Your task to perform on an android device: Open calendar and show me the third week of next month Image 0: 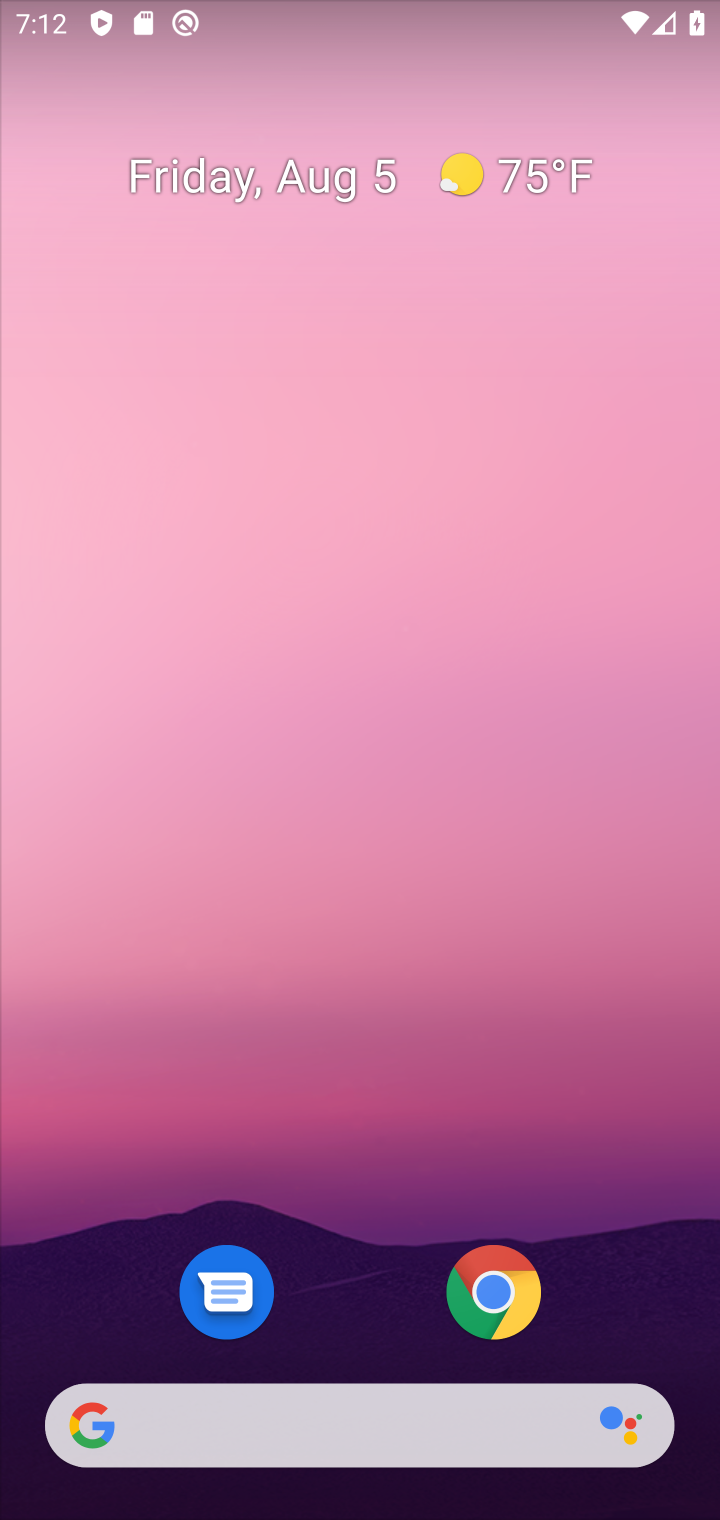
Step 0: drag from (319, 1214) to (341, 57)
Your task to perform on an android device: Open calendar and show me the third week of next month Image 1: 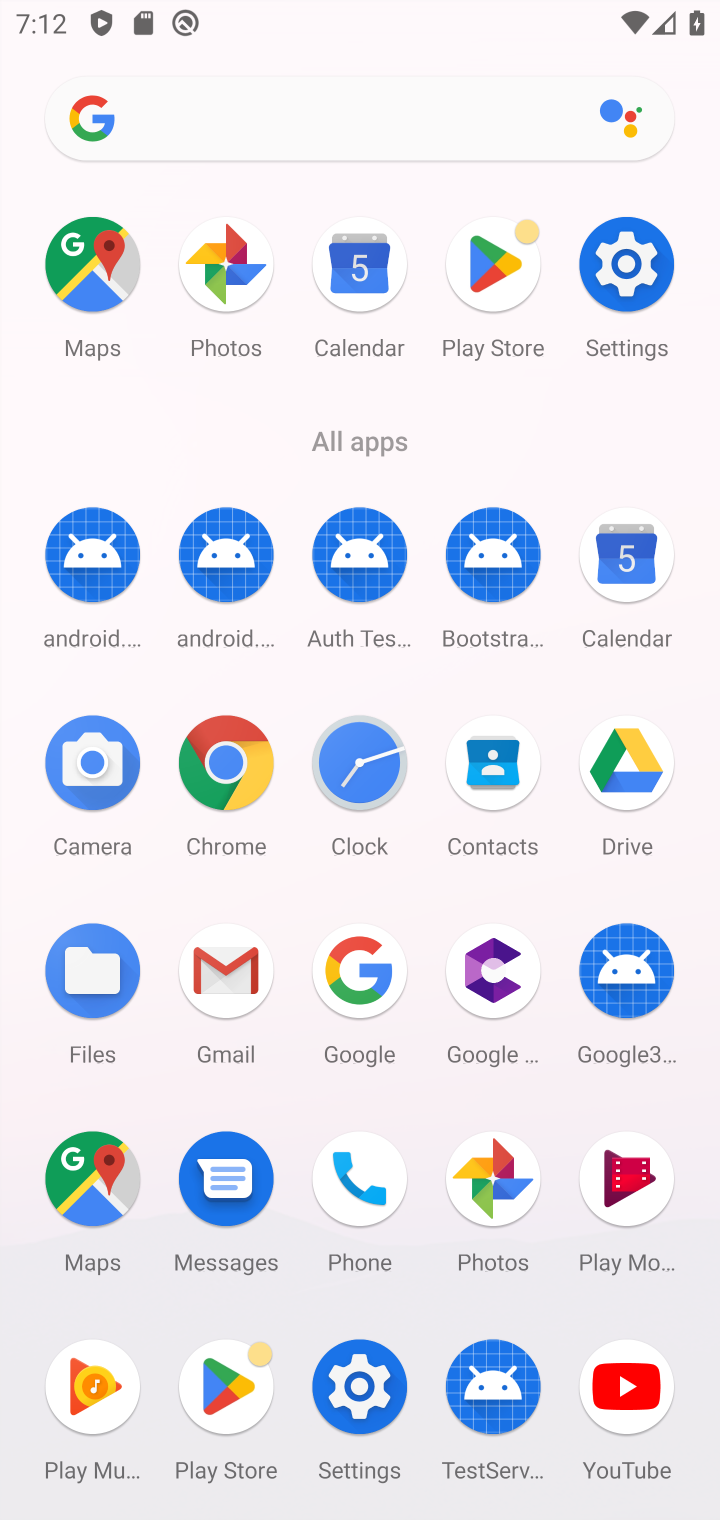
Step 1: click (364, 271)
Your task to perform on an android device: Open calendar and show me the third week of next month Image 2: 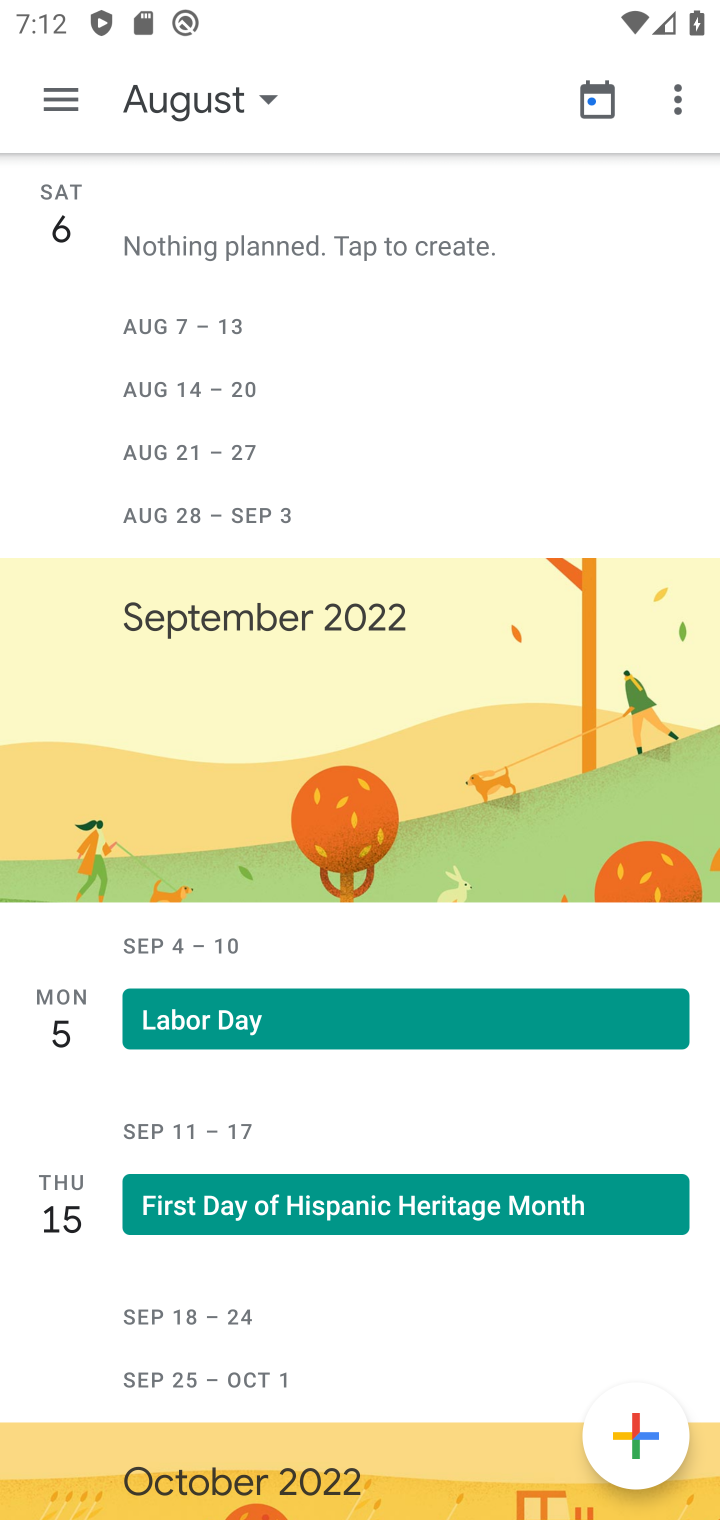
Step 2: click (63, 101)
Your task to perform on an android device: Open calendar and show me the third week of next month Image 3: 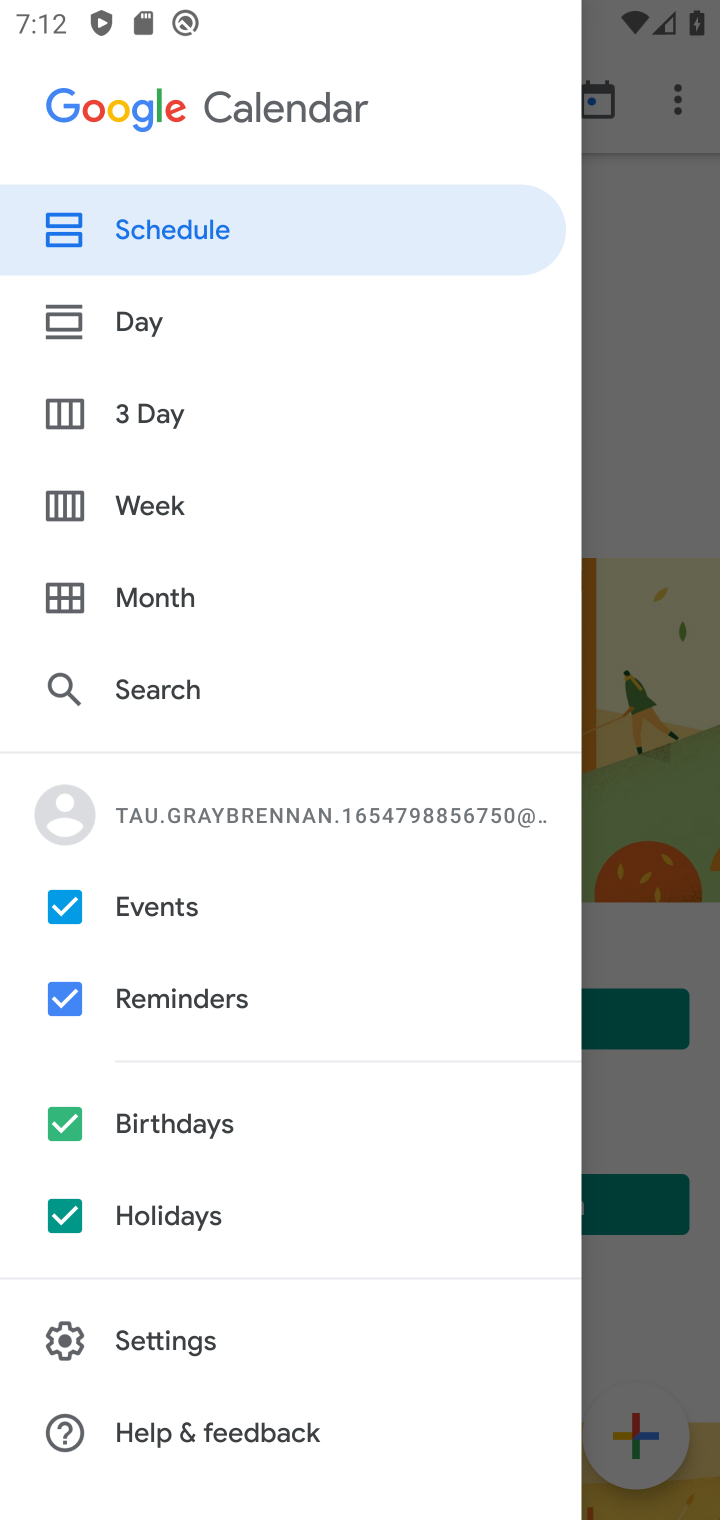
Step 3: click (63, 601)
Your task to perform on an android device: Open calendar and show me the third week of next month Image 4: 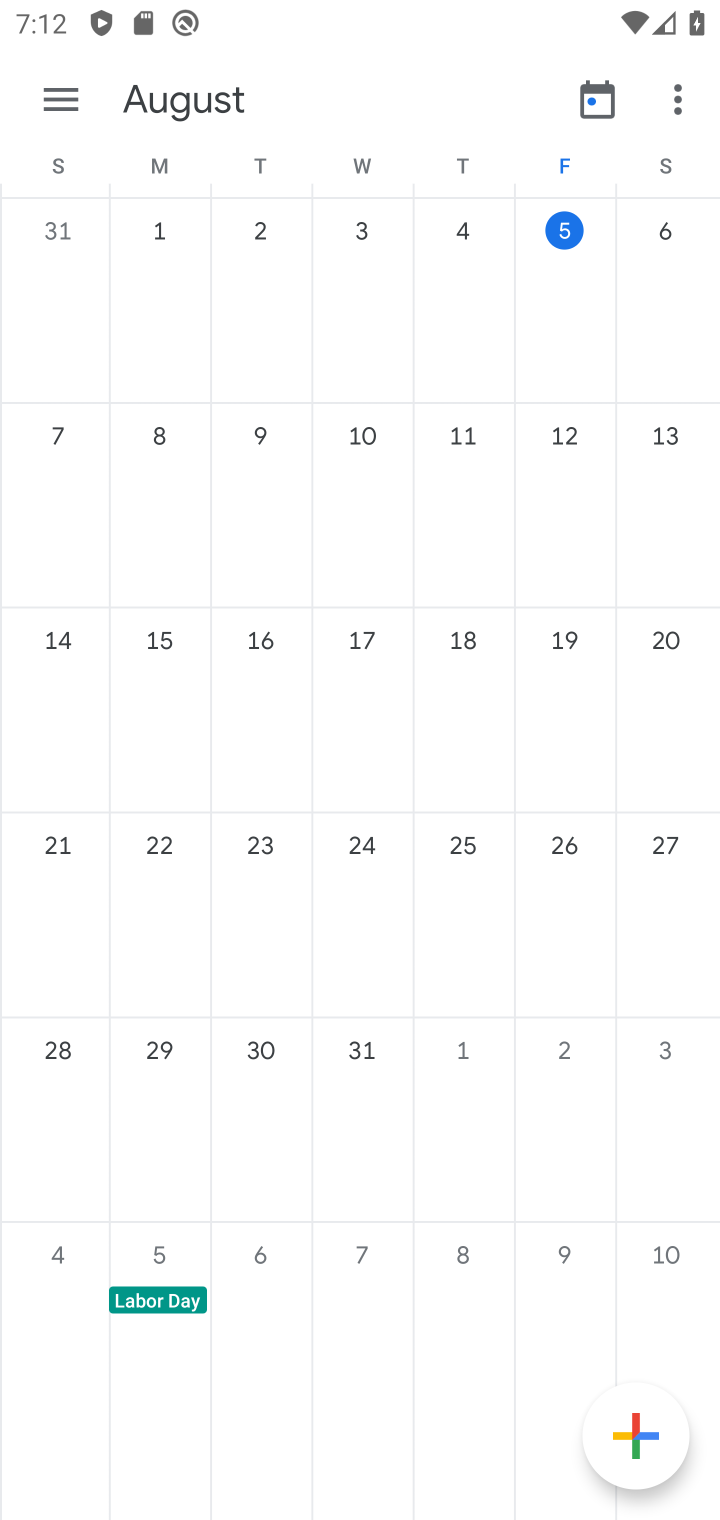
Step 4: drag from (682, 321) to (3, 365)
Your task to perform on an android device: Open calendar and show me the third week of next month Image 5: 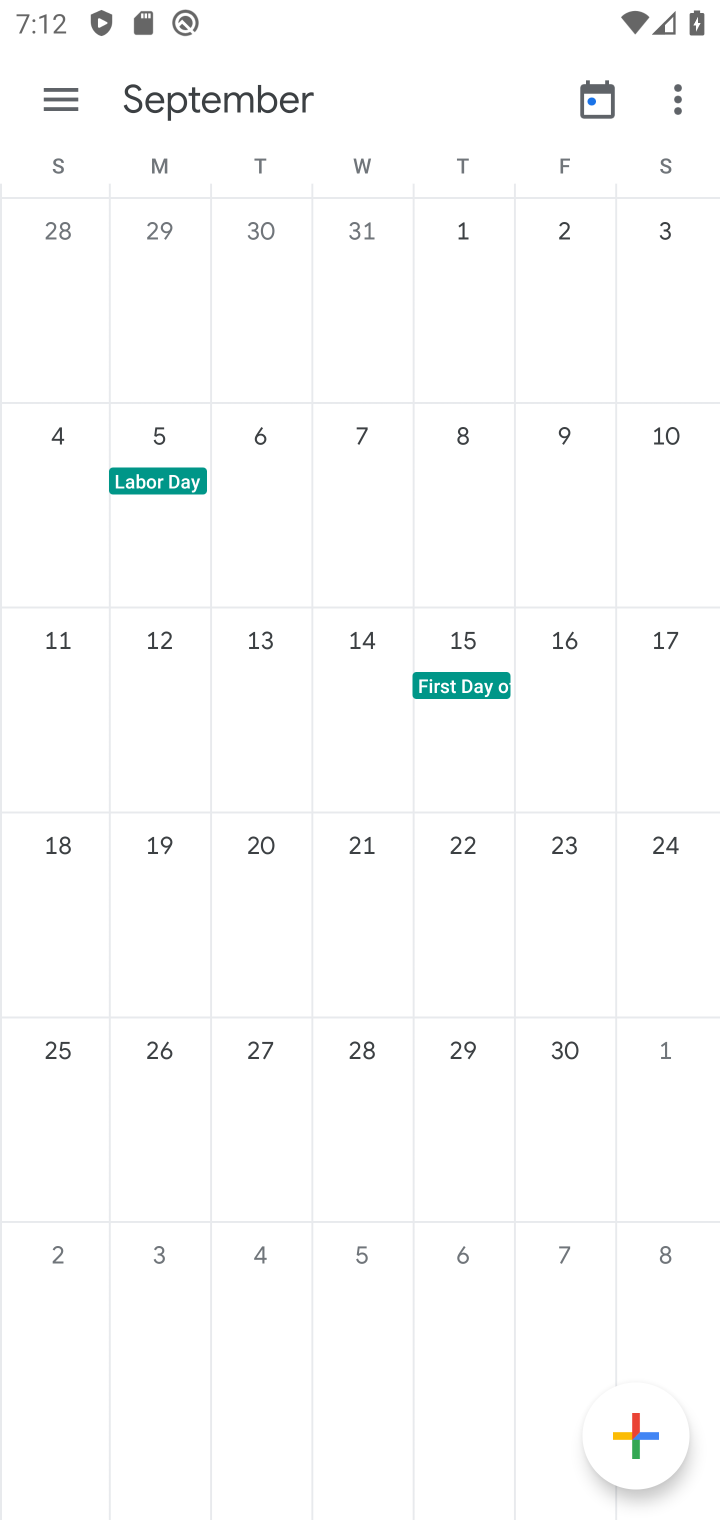
Step 5: click (80, 852)
Your task to perform on an android device: Open calendar and show me the third week of next month Image 6: 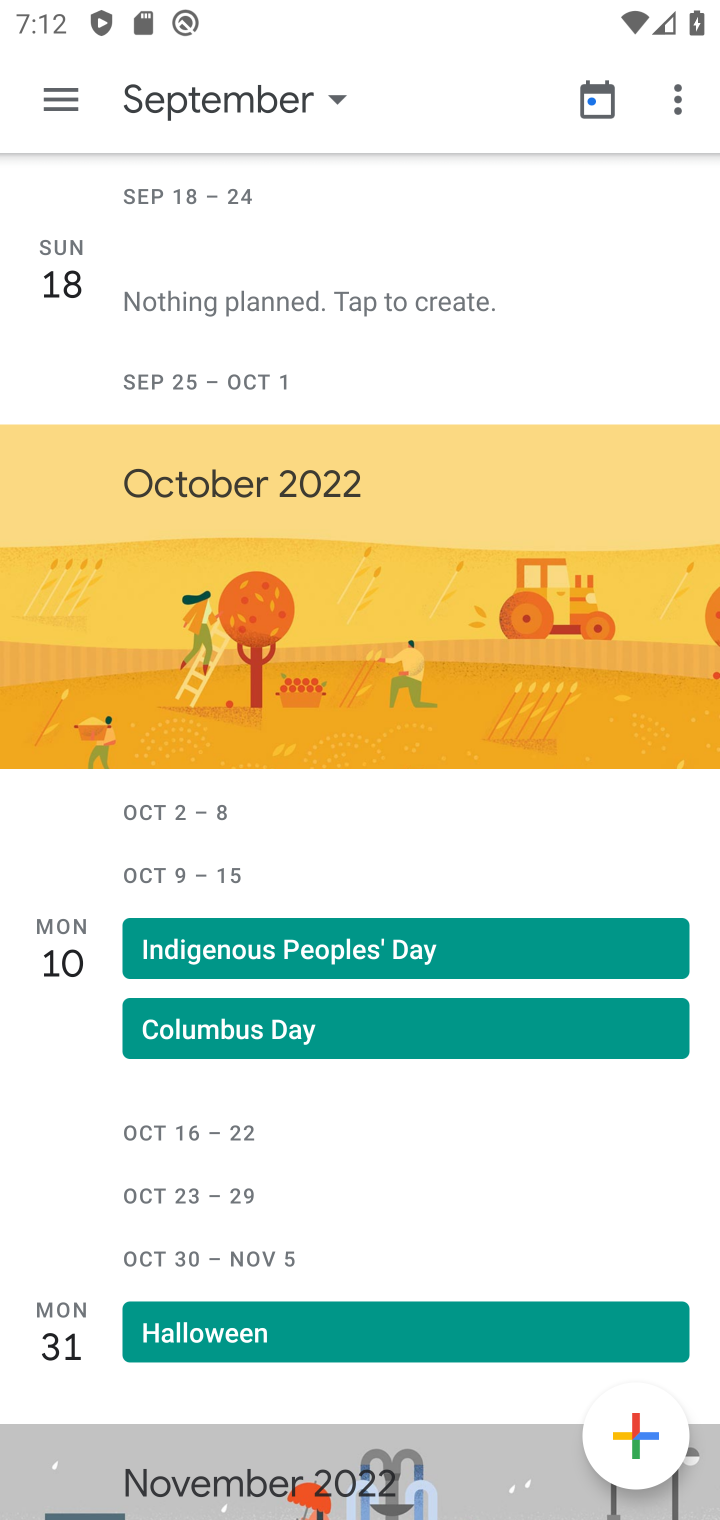
Step 6: click (72, 102)
Your task to perform on an android device: Open calendar and show me the third week of next month Image 7: 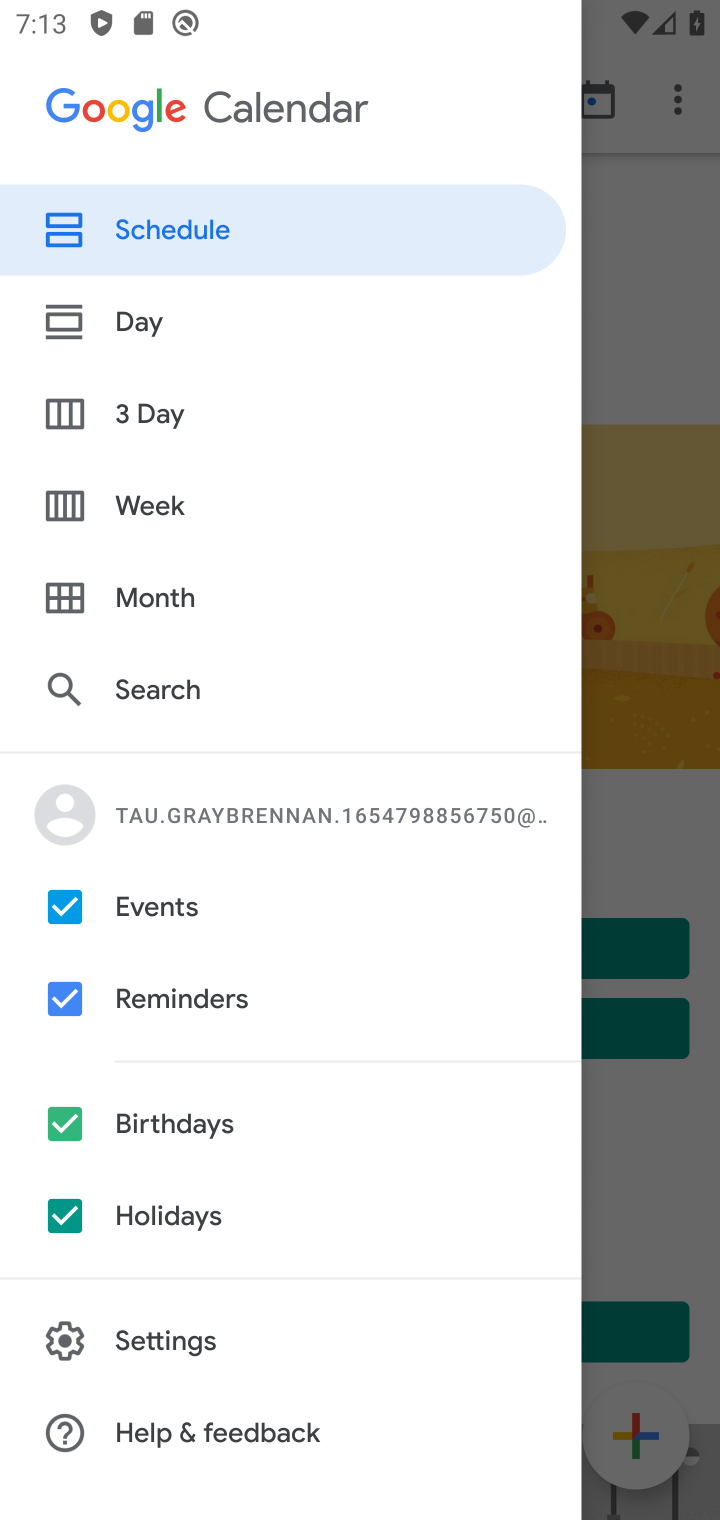
Step 7: click (55, 499)
Your task to perform on an android device: Open calendar and show me the third week of next month Image 8: 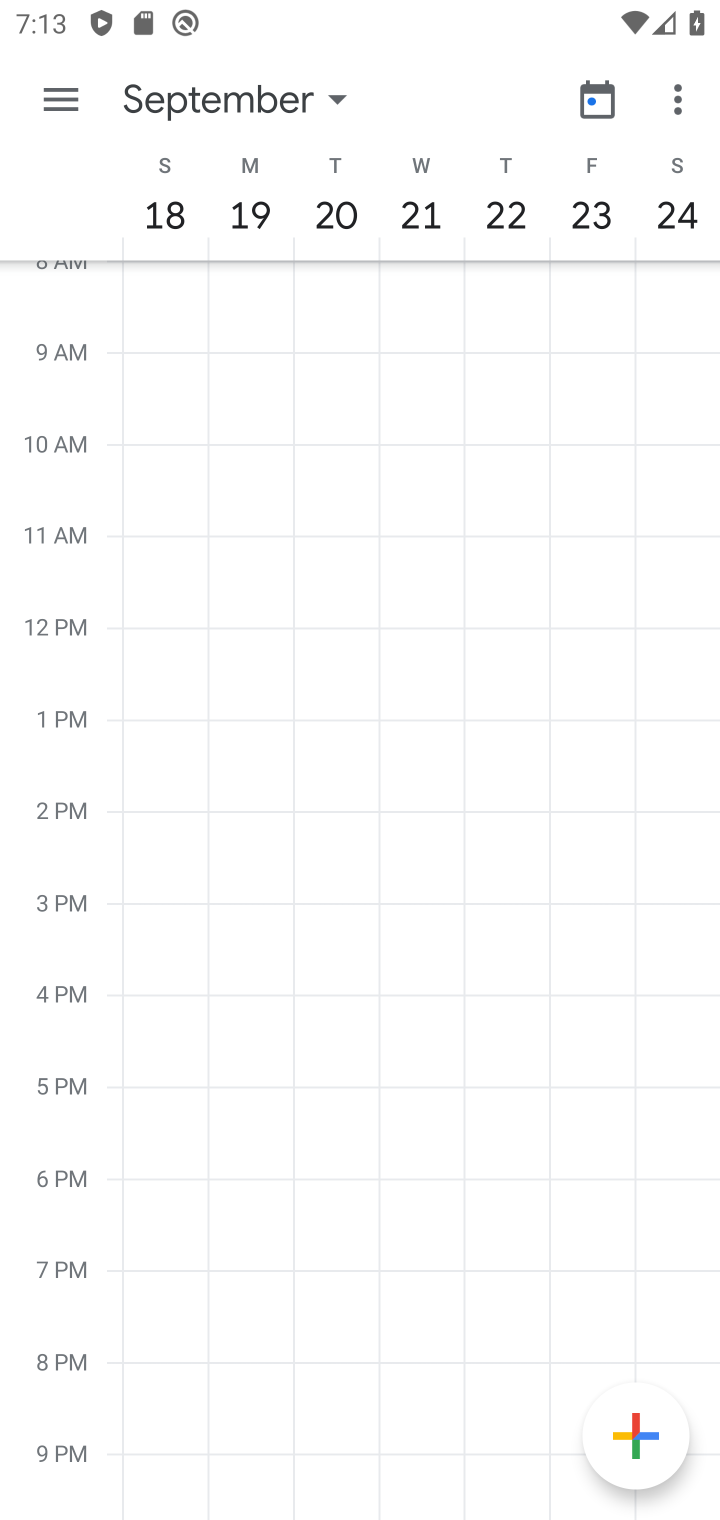
Step 8: task complete